Your task to perform on an android device: Is it going to rain this weekend? Image 0: 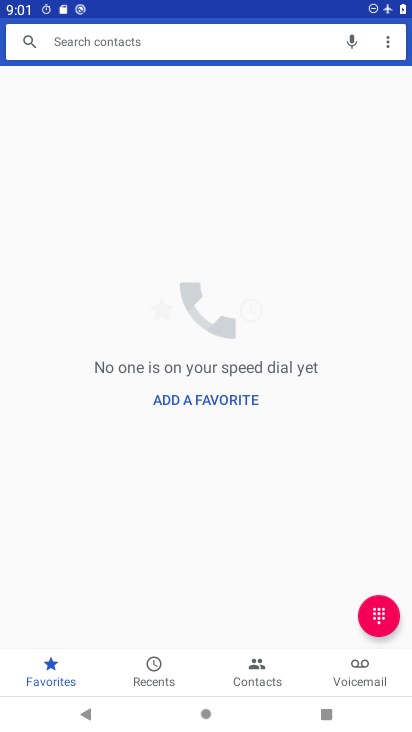
Step 0: press back button
Your task to perform on an android device: Is it going to rain this weekend? Image 1: 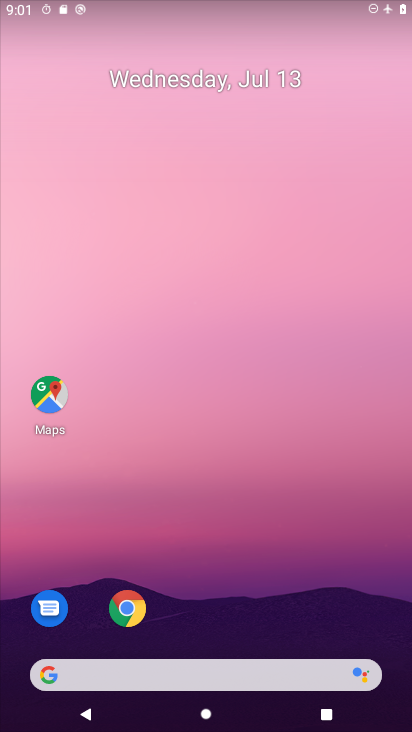
Step 1: drag from (264, 672) to (204, 269)
Your task to perform on an android device: Is it going to rain this weekend? Image 2: 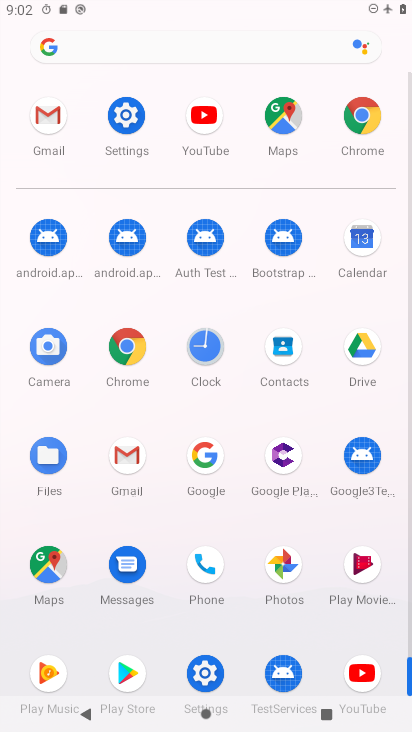
Step 2: click (365, 113)
Your task to perform on an android device: Is it going to rain this weekend? Image 3: 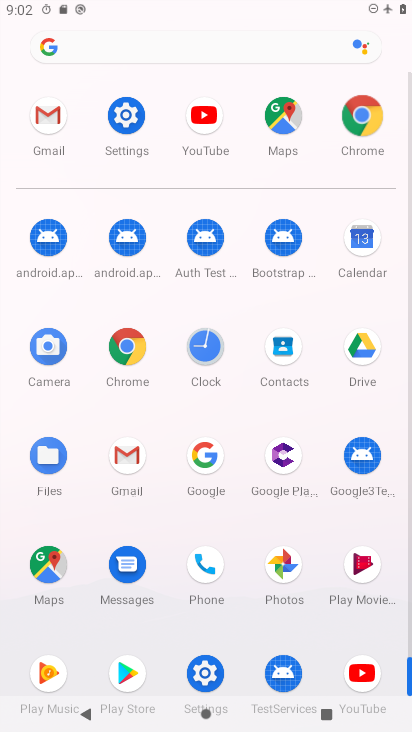
Step 3: click (365, 113)
Your task to perform on an android device: Is it going to rain this weekend? Image 4: 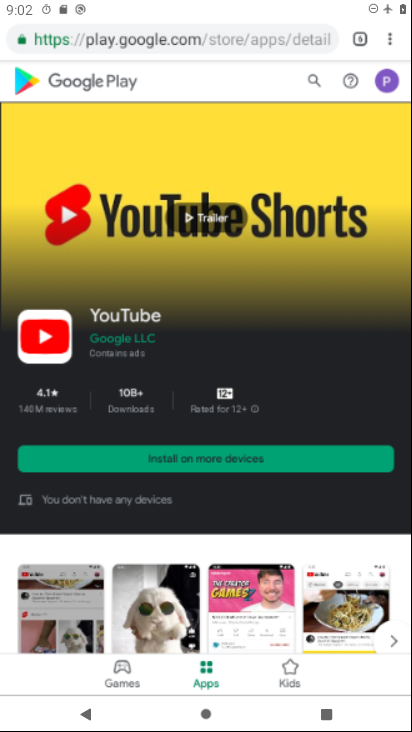
Step 4: click (365, 113)
Your task to perform on an android device: Is it going to rain this weekend? Image 5: 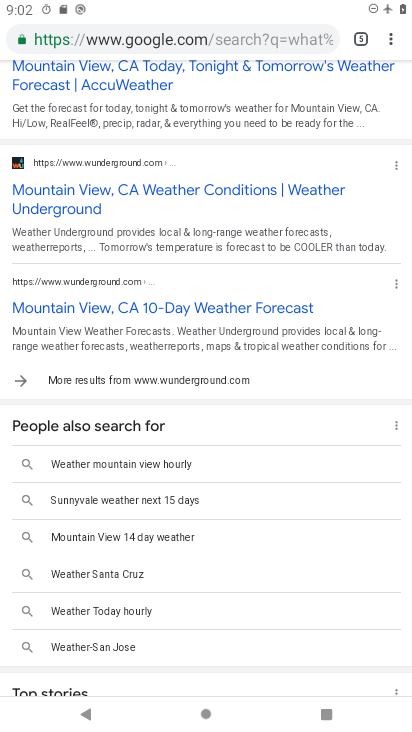
Step 5: press back button
Your task to perform on an android device: Is it going to rain this weekend? Image 6: 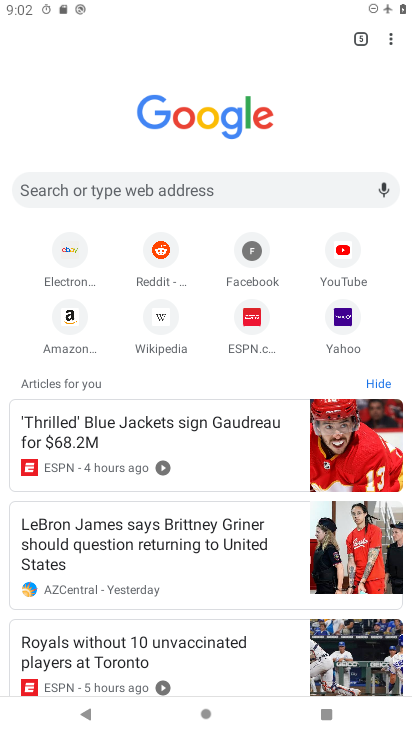
Step 6: click (55, 186)
Your task to perform on an android device: Is it going to rain this weekend? Image 7: 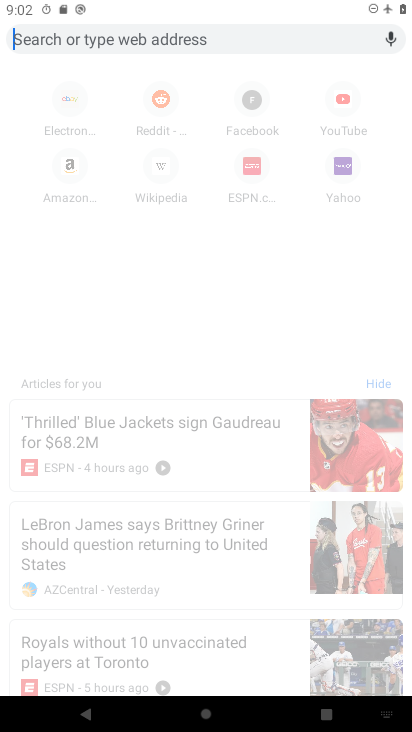
Step 7: type "is it going to rain this weekend?"
Your task to perform on an android device: Is it going to rain this weekend? Image 8: 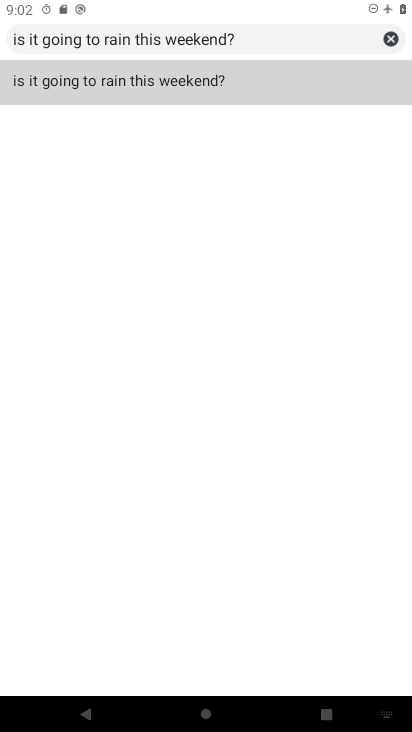
Step 8: click (132, 90)
Your task to perform on an android device: Is it going to rain this weekend? Image 9: 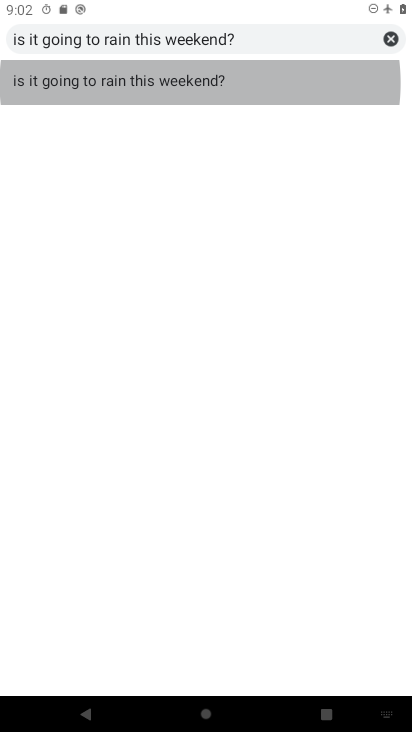
Step 9: click (142, 86)
Your task to perform on an android device: Is it going to rain this weekend? Image 10: 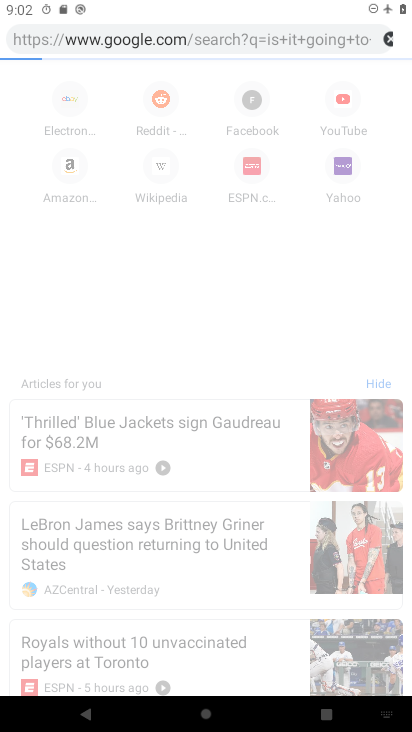
Step 10: click (145, 86)
Your task to perform on an android device: Is it going to rain this weekend? Image 11: 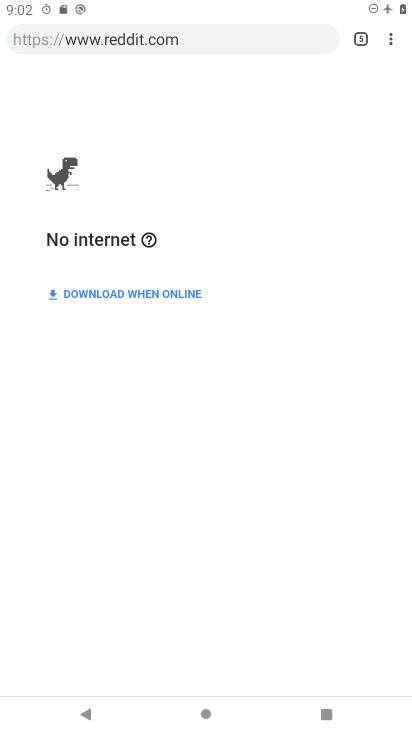
Step 11: task complete